Your task to perform on an android device: turn on improve location accuracy Image 0: 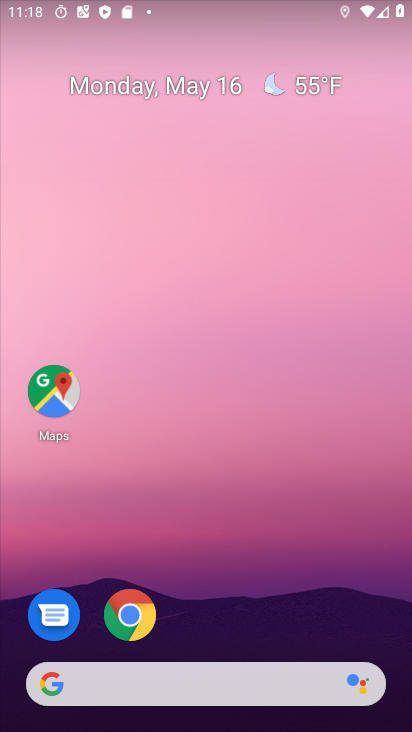
Step 0: drag from (270, 541) to (391, 60)
Your task to perform on an android device: turn on improve location accuracy Image 1: 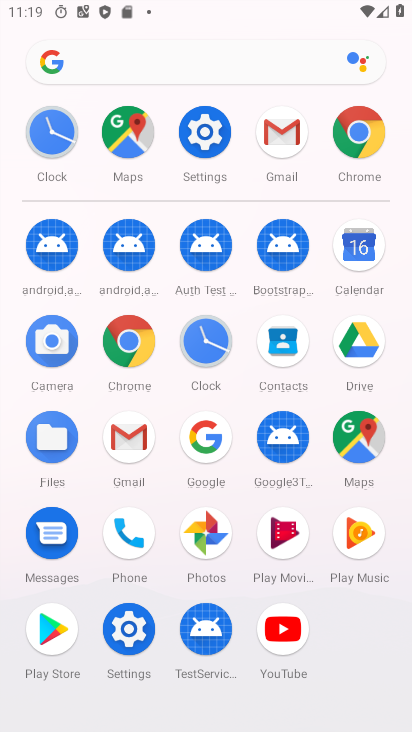
Step 1: click (123, 662)
Your task to perform on an android device: turn on improve location accuracy Image 2: 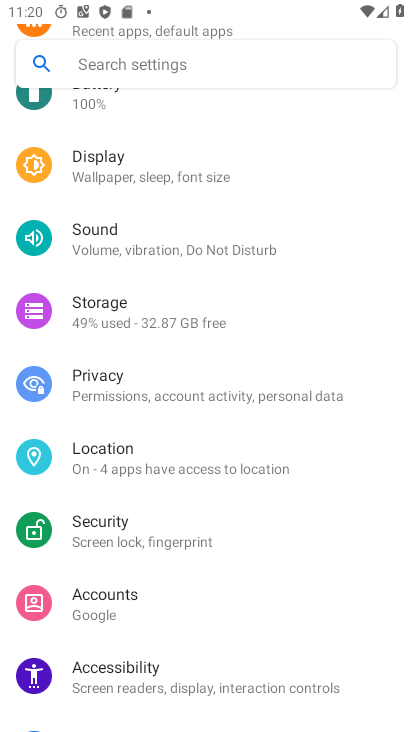
Step 2: click (82, 479)
Your task to perform on an android device: turn on improve location accuracy Image 3: 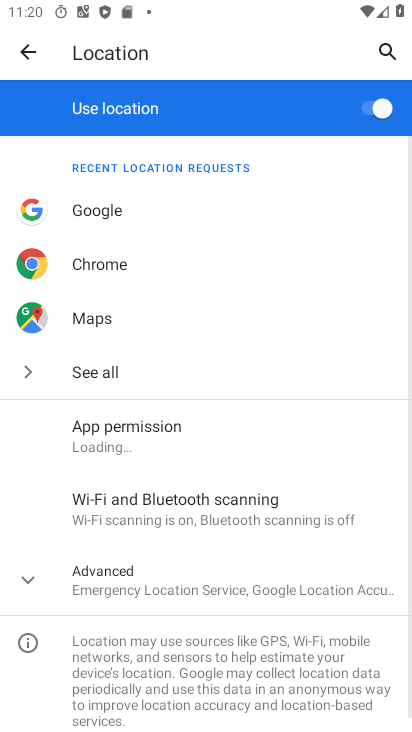
Step 3: click (132, 586)
Your task to perform on an android device: turn on improve location accuracy Image 4: 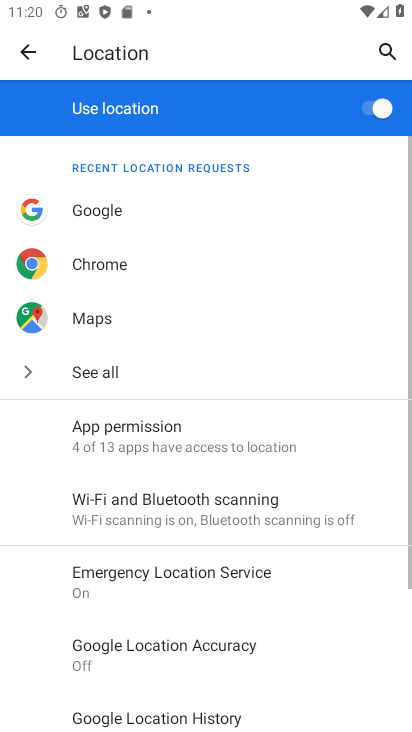
Step 4: click (211, 657)
Your task to perform on an android device: turn on improve location accuracy Image 5: 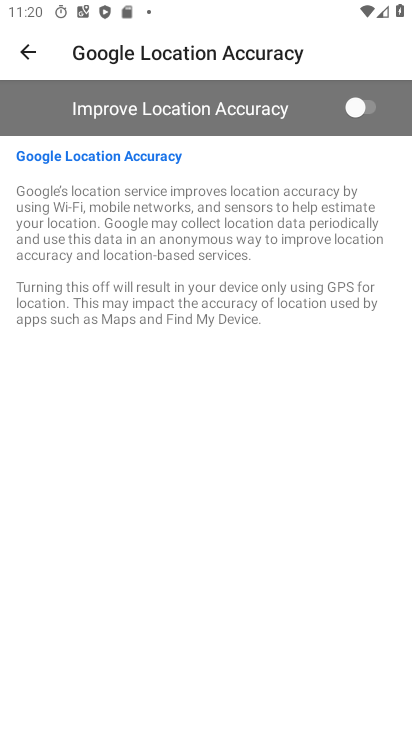
Step 5: click (330, 109)
Your task to perform on an android device: turn on improve location accuracy Image 6: 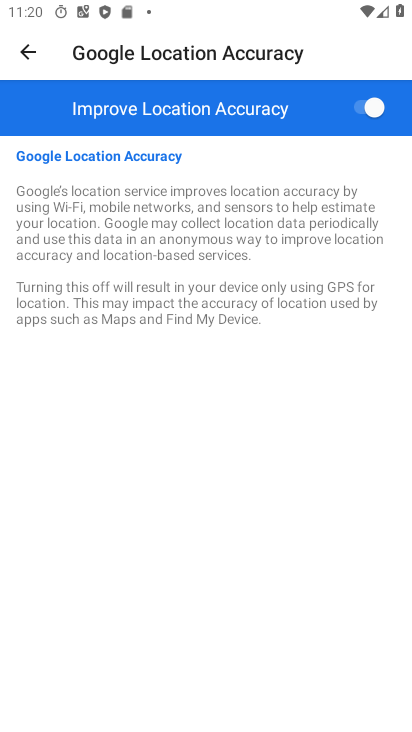
Step 6: task complete